Your task to perform on an android device: Add "usb-a to usb-b" to the cart on bestbuy, then select checkout. Image 0: 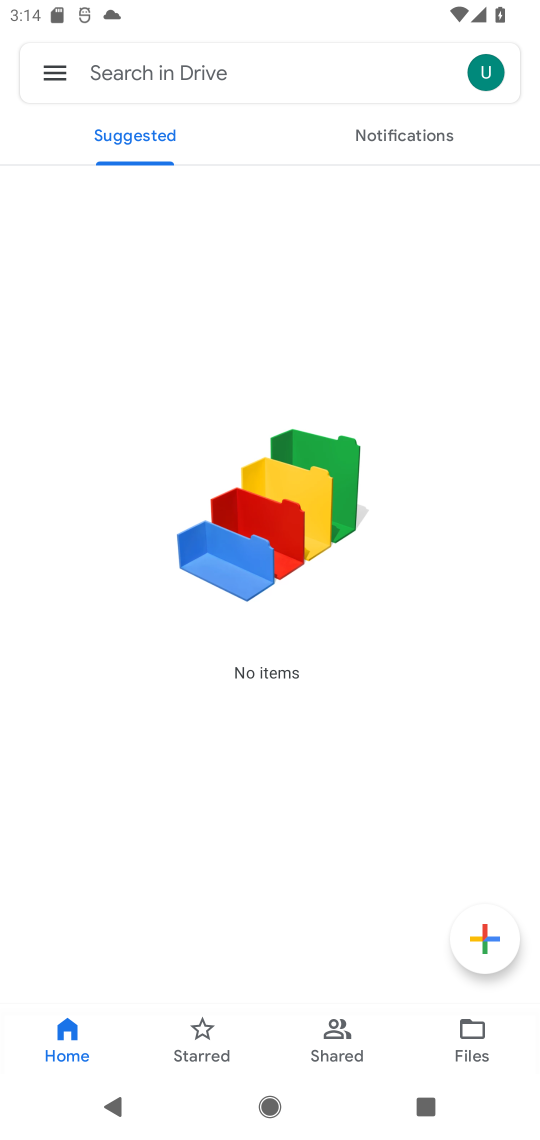
Step 0: press home button
Your task to perform on an android device: Add "usb-a to usb-b" to the cart on bestbuy, then select checkout. Image 1: 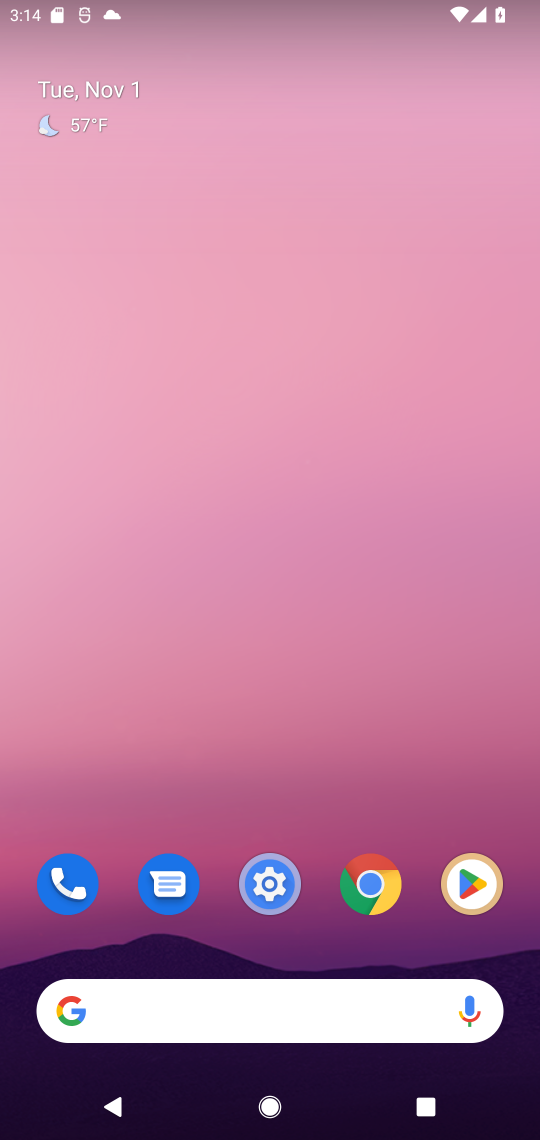
Step 1: click (103, 1006)
Your task to perform on an android device: Add "usb-a to usb-b" to the cart on bestbuy, then select checkout. Image 2: 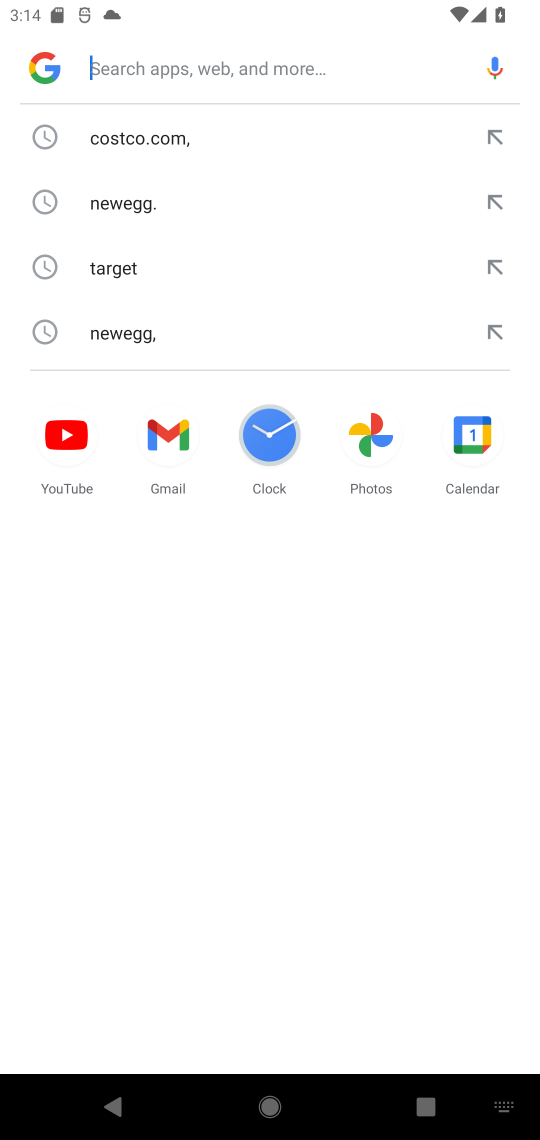
Step 2: type "bestbuy"
Your task to perform on an android device: Add "usb-a to usb-b" to the cart on bestbuy, then select checkout. Image 3: 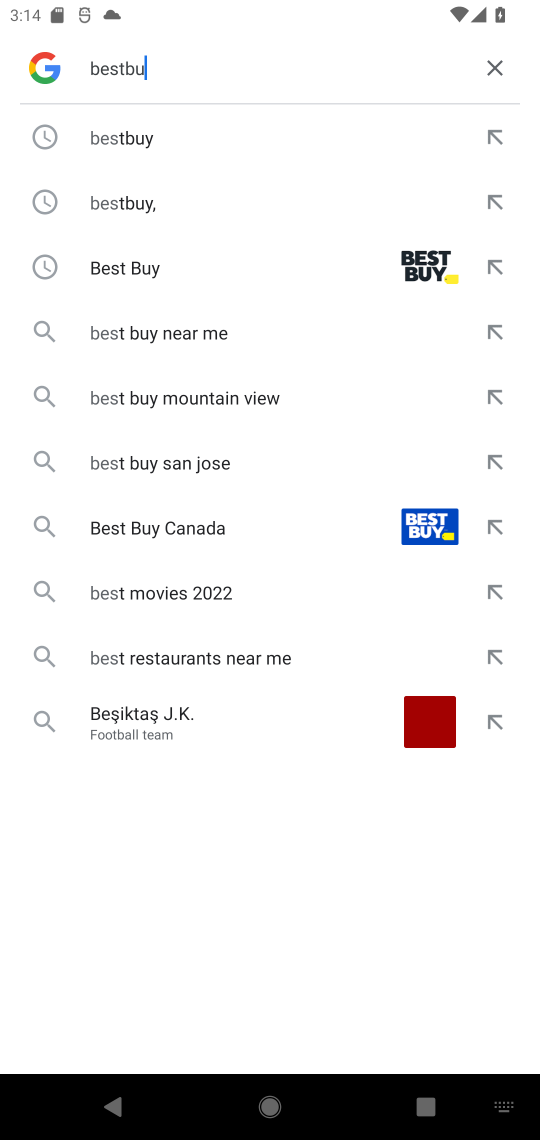
Step 3: press enter
Your task to perform on an android device: Add "usb-a to usb-b" to the cart on bestbuy, then select checkout. Image 4: 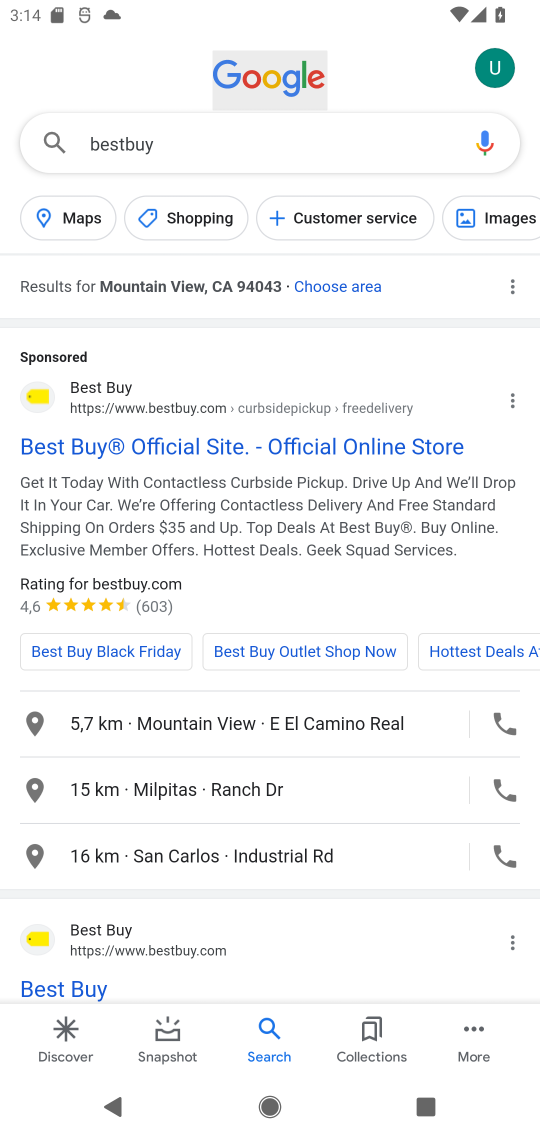
Step 4: click (225, 453)
Your task to perform on an android device: Add "usb-a to usb-b" to the cart on bestbuy, then select checkout. Image 5: 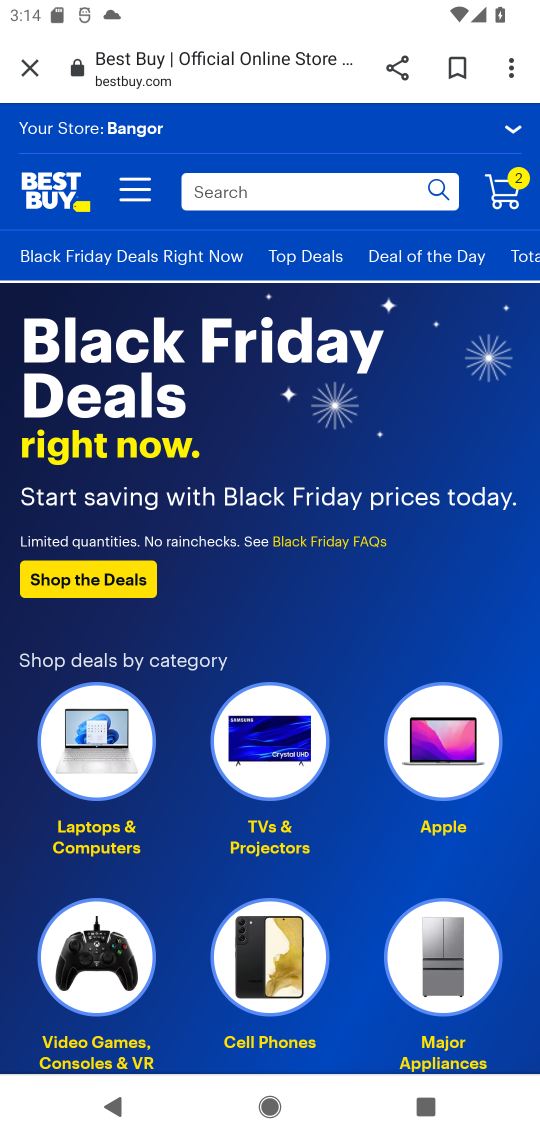
Step 5: click (220, 189)
Your task to perform on an android device: Add "usb-a to usb-b" to the cart on bestbuy, then select checkout. Image 6: 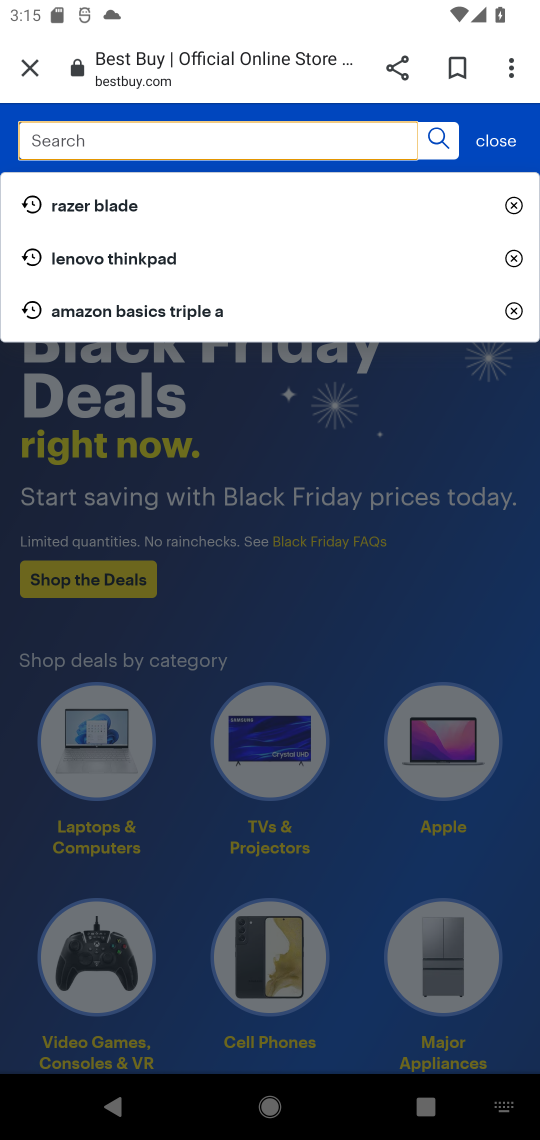
Step 6: press enter
Your task to perform on an android device: Add "usb-a to usb-b" to the cart on bestbuy, then select checkout. Image 7: 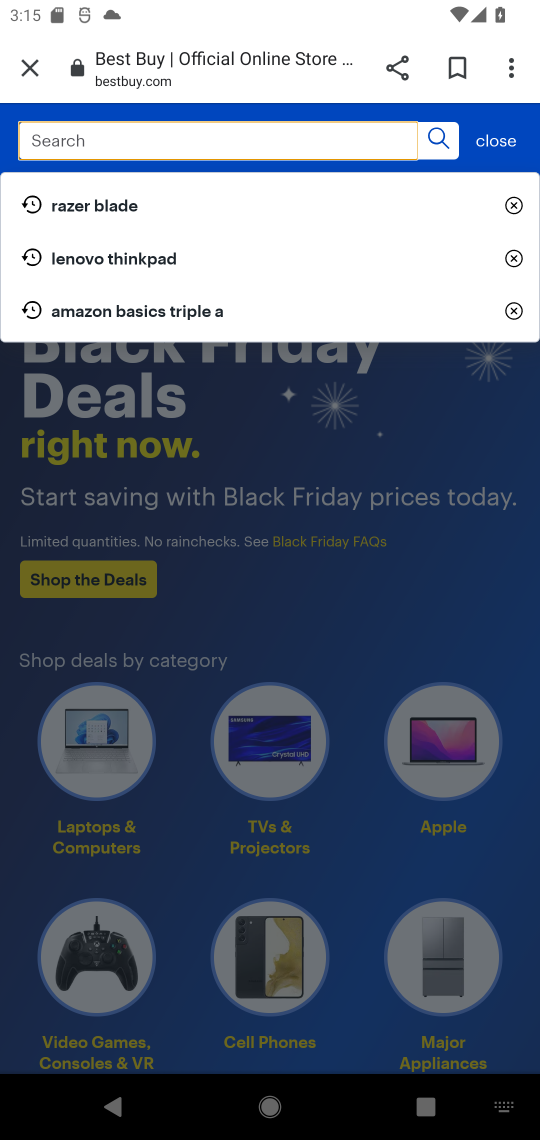
Step 7: type "usb-a to usb-b"
Your task to perform on an android device: Add "usb-a to usb-b" to the cart on bestbuy, then select checkout. Image 8: 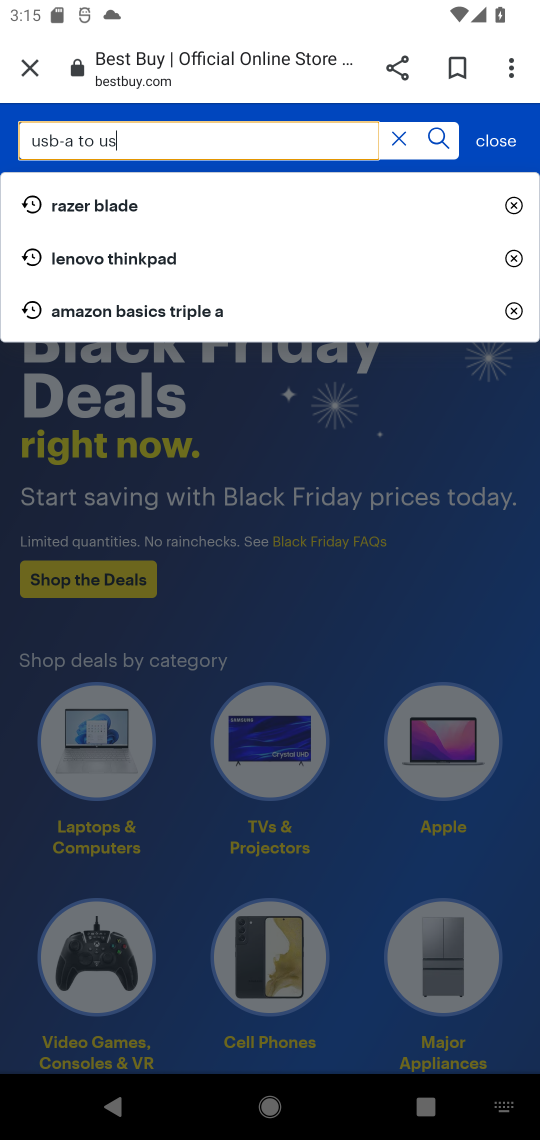
Step 8: press enter
Your task to perform on an android device: Add "usb-a to usb-b" to the cart on bestbuy, then select checkout. Image 9: 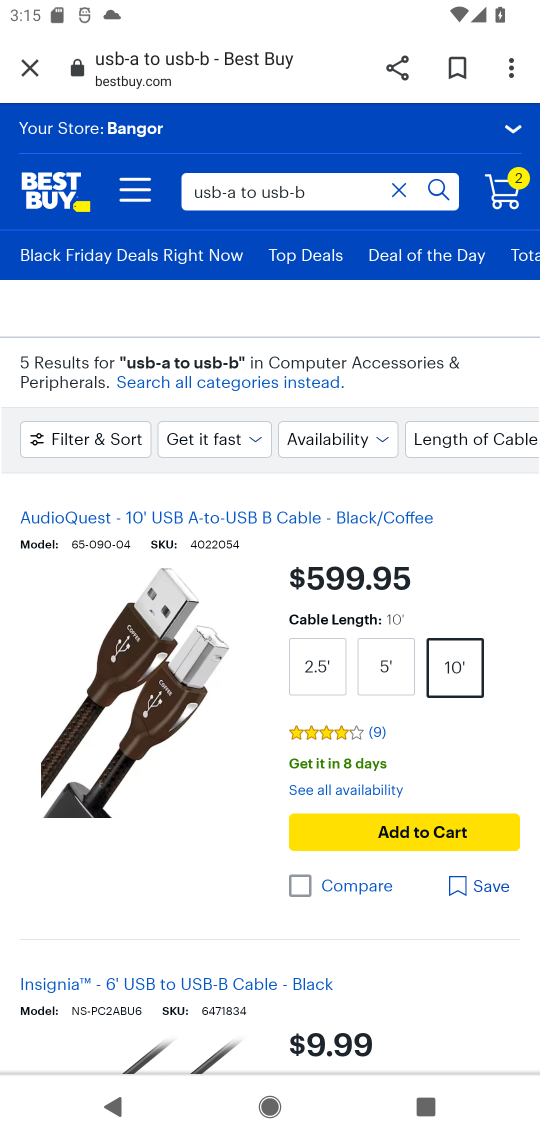
Step 9: click (424, 826)
Your task to perform on an android device: Add "usb-a to usb-b" to the cart on bestbuy, then select checkout. Image 10: 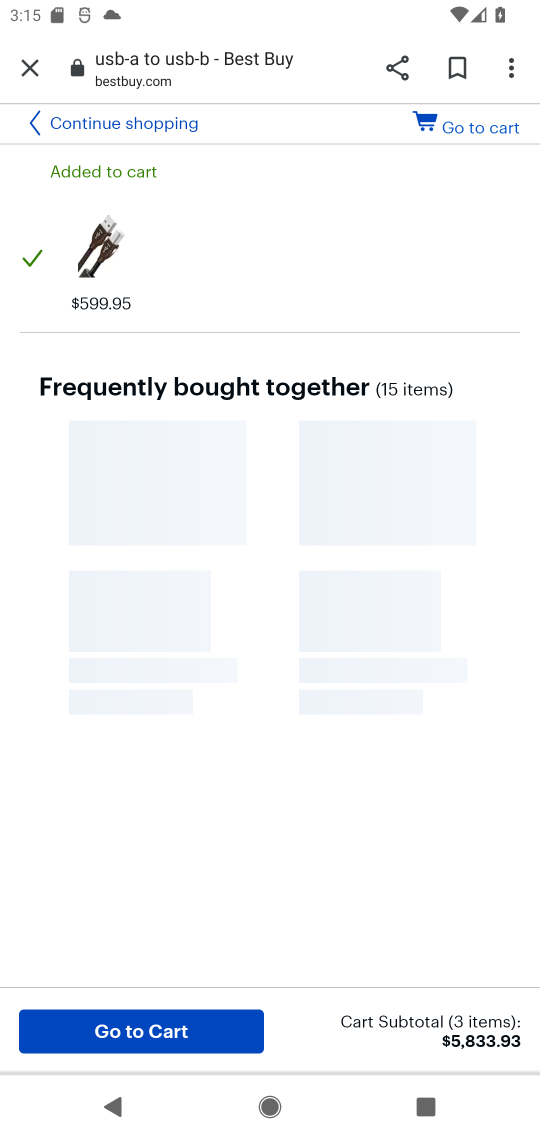
Step 10: click (150, 1031)
Your task to perform on an android device: Add "usb-a to usb-b" to the cart on bestbuy, then select checkout. Image 11: 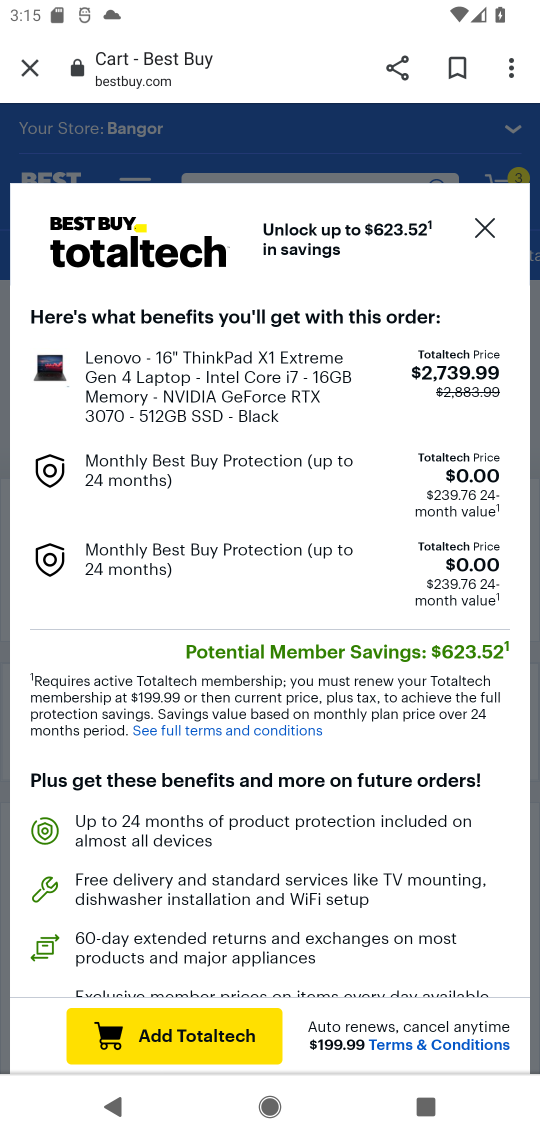
Step 11: click (483, 229)
Your task to perform on an android device: Add "usb-a to usb-b" to the cart on bestbuy, then select checkout. Image 12: 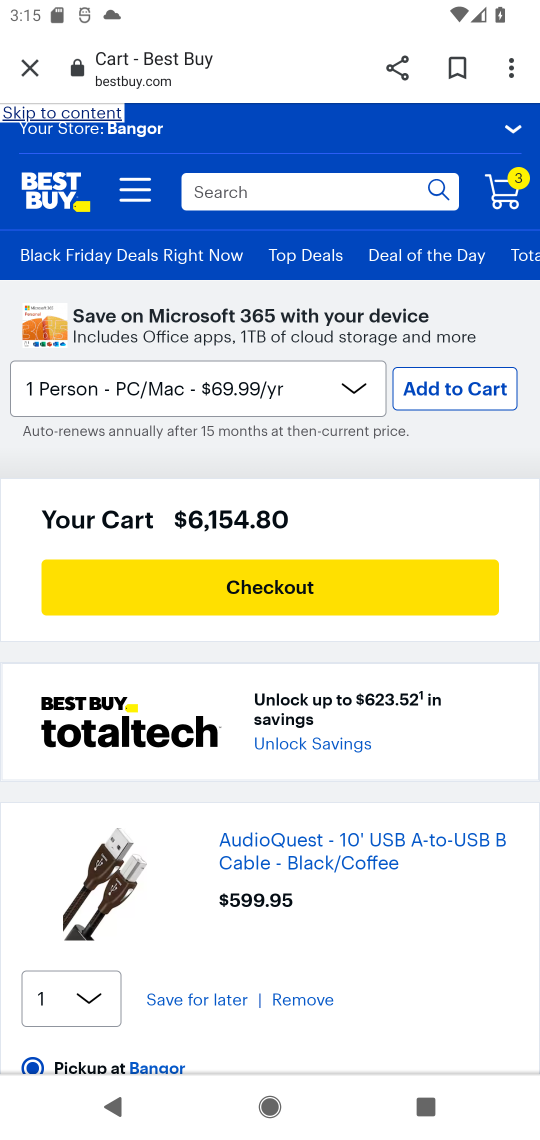
Step 12: click (320, 587)
Your task to perform on an android device: Add "usb-a to usb-b" to the cart on bestbuy, then select checkout. Image 13: 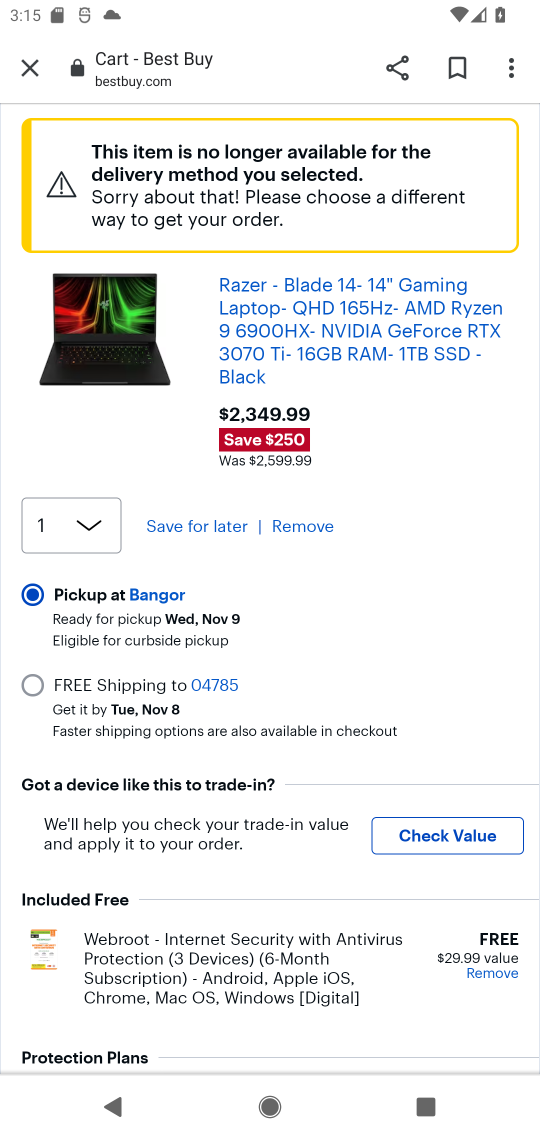
Step 13: task complete